Your task to perform on an android device: Find coffee shops on Maps Image 0: 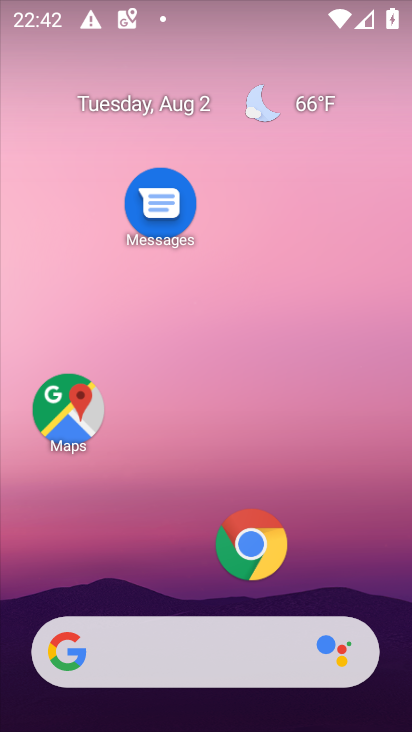
Step 0: click (51, 423)
Your task to perform on an android device: Find coffee shops on Maps Image 1: 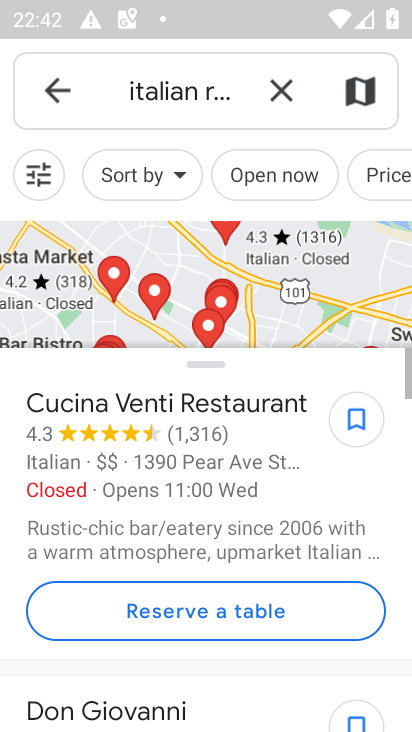
Step 1: click (268, 96)
Your task to perform on an android device: Find coffee shops on Maps Image 2: 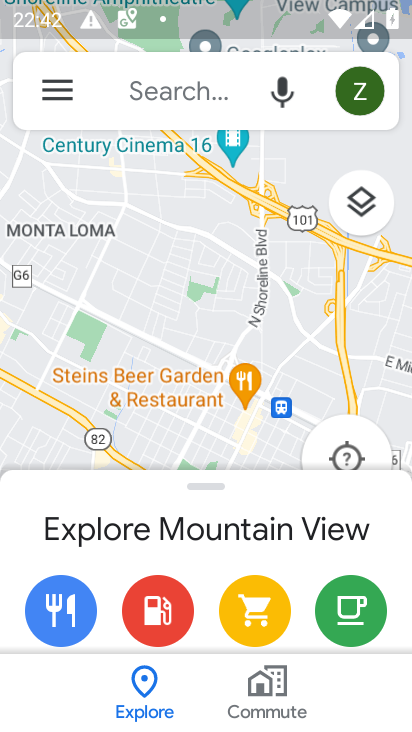
Step 2: click (222, 91)
Your task to perform on an android device: Find coffee shops on Maps Image 3: 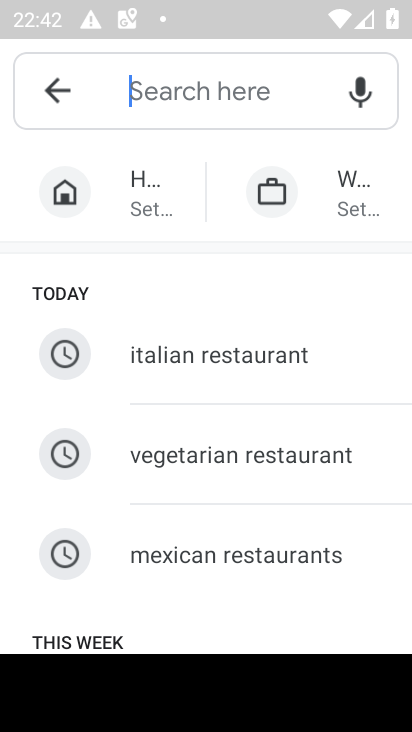
Step 3: type "coffee shops"
Your task to perform on an android device: Find coffee shops on Maps Image 4: 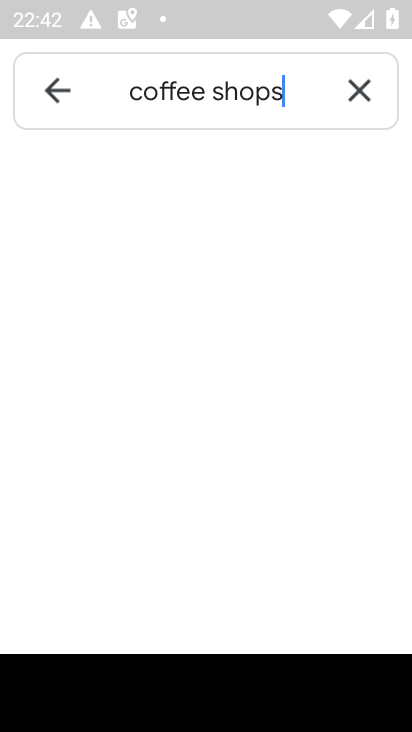
Step 4: type ""
Your task to perform on an android device: Find coffee shops on Maps Image 5: 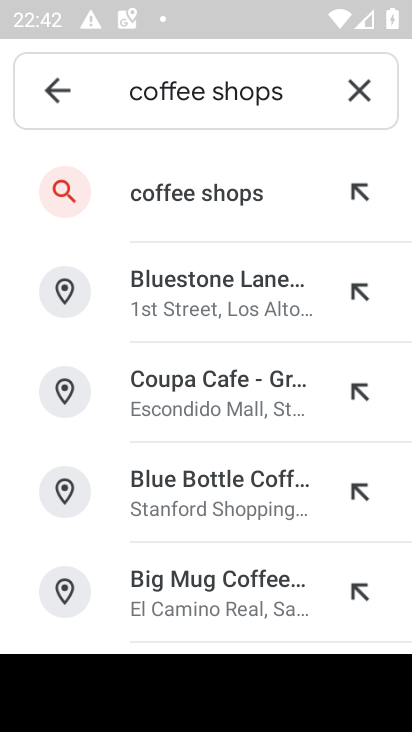
Step 5: click (264, 197)
Your task to perform on an android device: Find coffee shops on Maps Image 6: 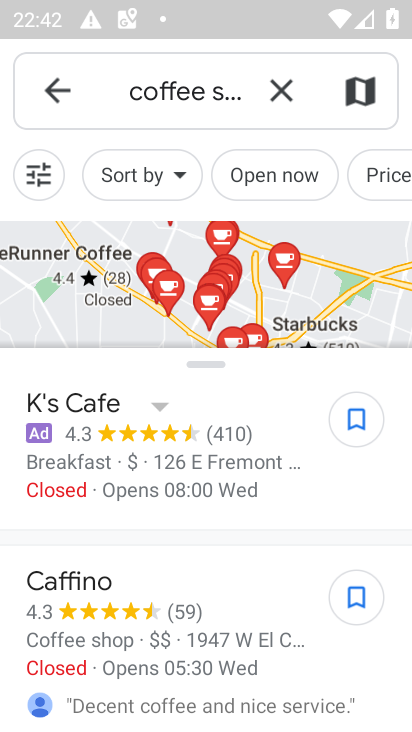
Step 6: task complete